Your task to perform on an android device: make emails show in primary in the gmail app Image 0: 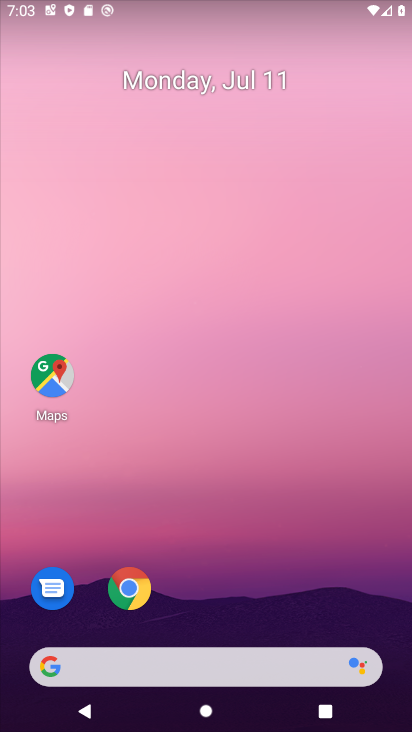
Step 0: drag from (337, 617) to (226, 228)
Your task to perform on an android device: make emails show in primary in the gmail app Image 1: 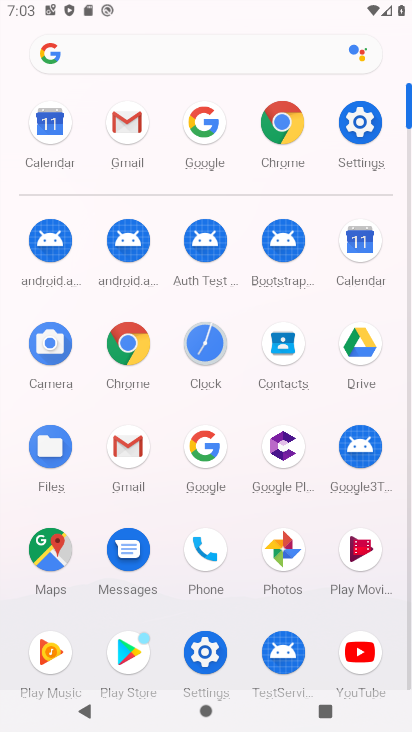
Step 1: click (109, 452)
Your task to perform on an android device: make emails show in primary in the gmail app Image 2: 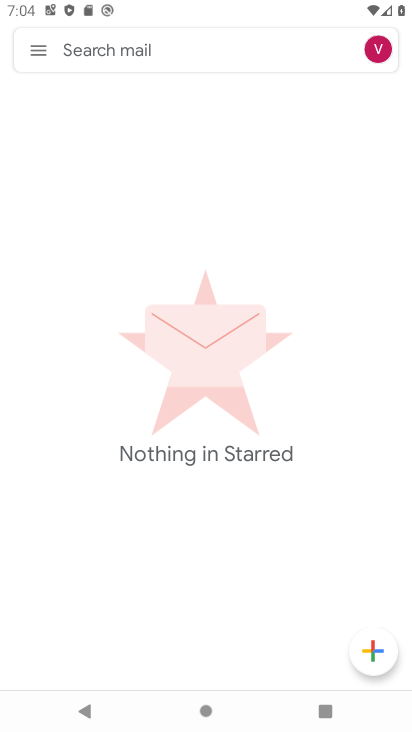
Step 2: task complete